Your task to perform on an android device: toggle pop-ups in chrome Image 0: 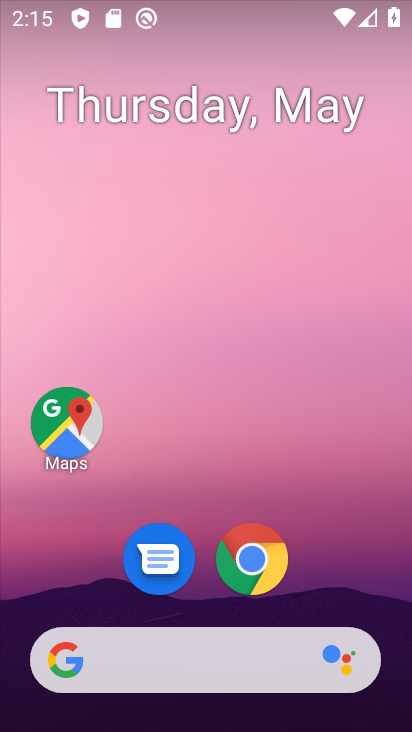
Step 0: click (253, 572)
Your task to perform on an android device: toggle pop-ups in chrome Image 1: 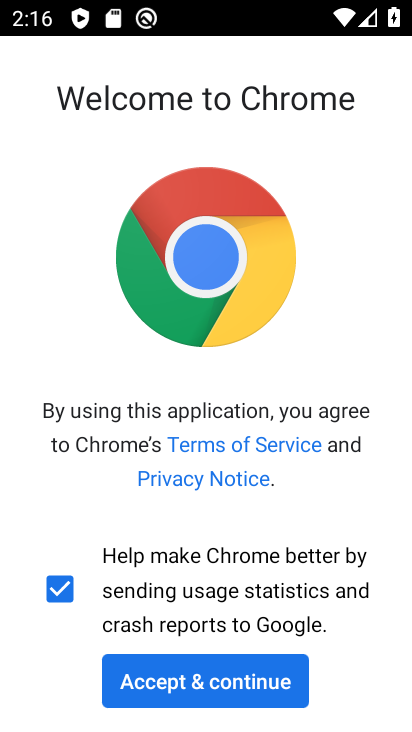
Step 1: click (220, 684)
Your task to perform on an android device: toggle pop-ups in chrome Image 2: 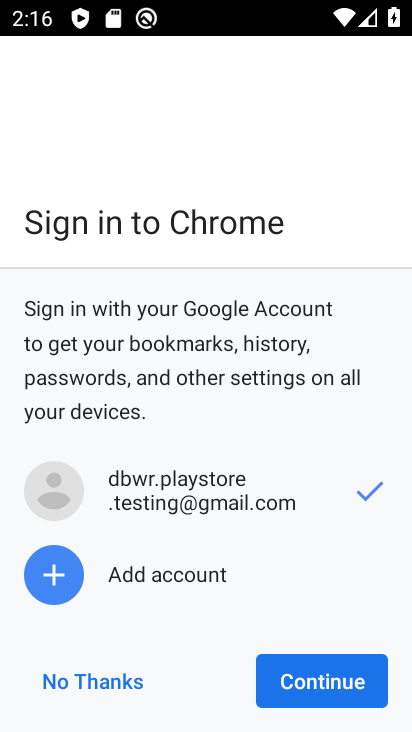
Step 2: click (367, 675)
Your task to perform on an android device: toggle pop-ups in chrome Image 3: 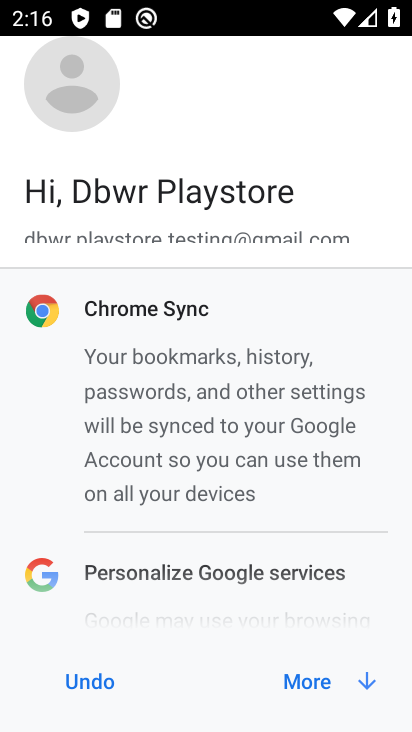
Step 3: click (322, 676)
Your task to perform on an android device: toggle pop-ups in chrome Image 4: 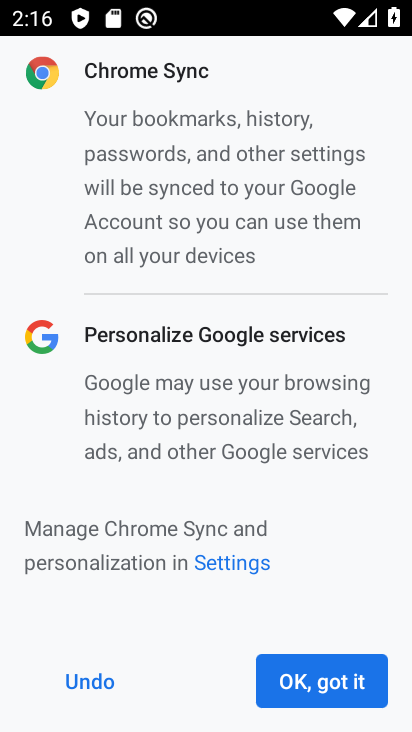
Step 4: click (322, 676)
Your task to perform on an android device: toggle pop-ups in chrome Image 5: 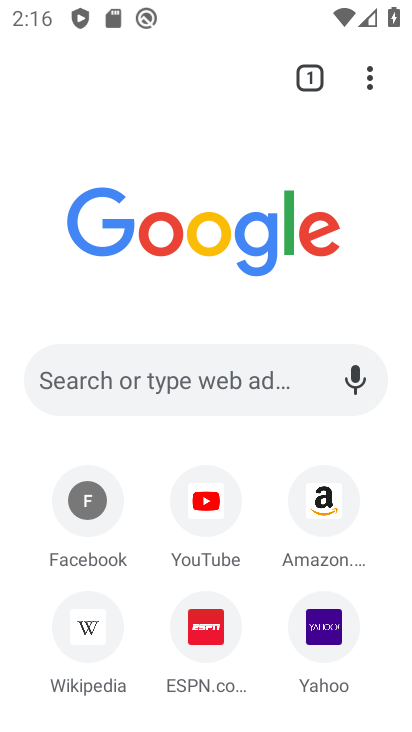
Step 5: click (371, 77)
Your task to perform on an android device: toggle pop-ups in chrome Image 6: 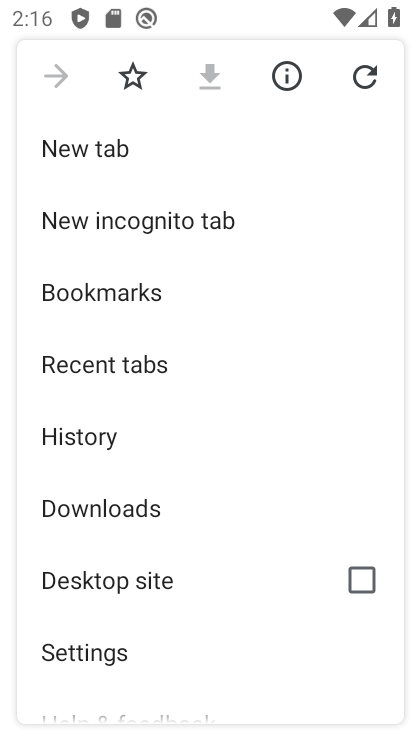
Step 6: click (94, 640)
Your task to perform on an android device: toggle pop-ups in chrome Image 7: 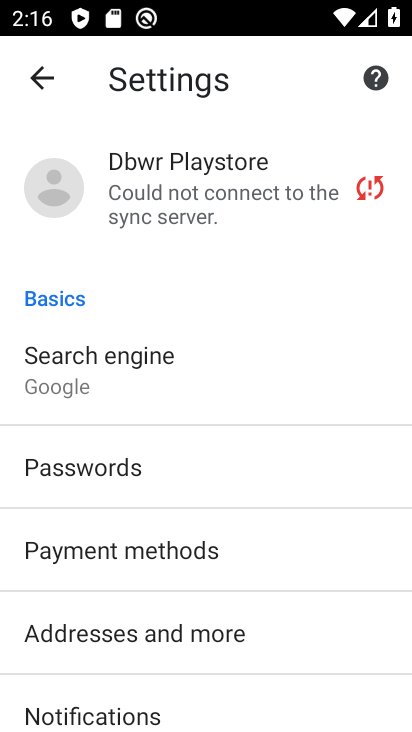
Step 7: drag from (154, 568) to (201, 323)
Your task to perform on an android device: toggle pop-ups in chrome Image 8: 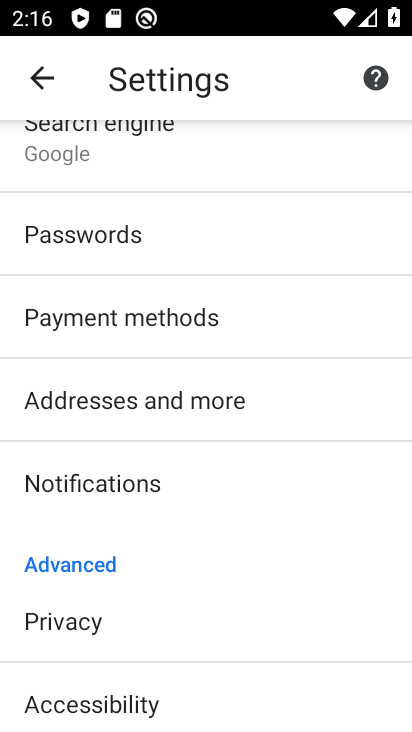
Step 8: drag from (112, 620) to (169, 437)
Your task to perform on an android device: toggle pop-ups in chrome Image 9: 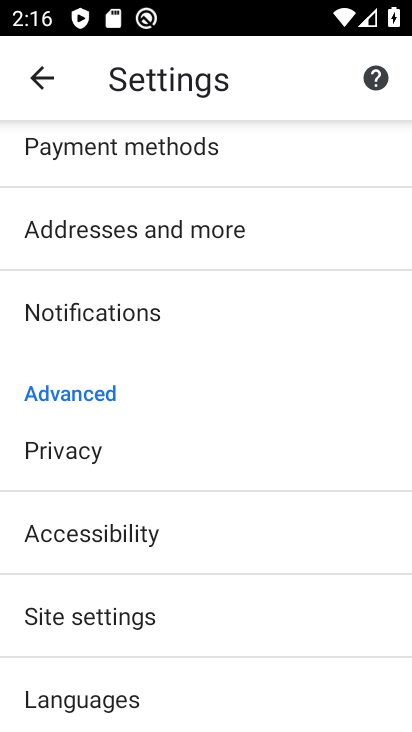
Step 9: click (95, 625)
Your task to perform on an android device: toggle pop-ups in chrome Image 10: 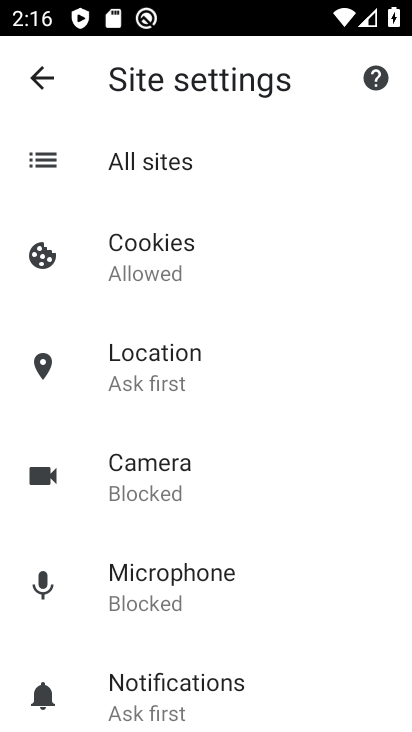
Step 10: drag from (160, 562) to (181, 385)
Your task to perform on an android device: toggle pop-ups in chrome Image 11: 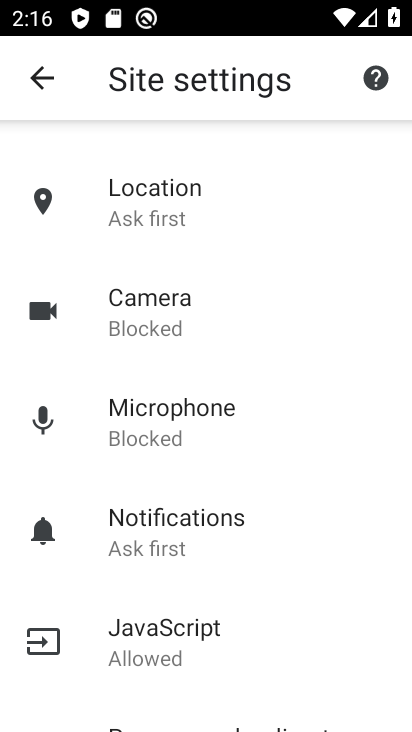
Step 11: drag from (173, 634) to (206, 333)
Your task to perform on an android device: toggle pop-ups in chrome Image 12: 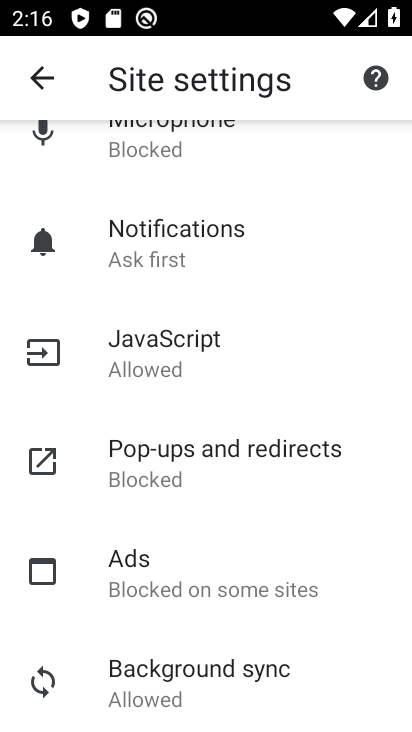
Step 12: click (161, 485)
Your task to perform on an android device: toggle pop-ups in chrome Image 13: 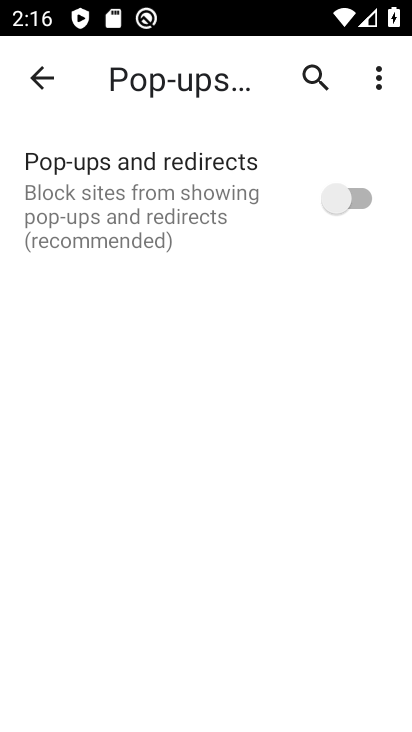
Step 13: click (353, 191)
Your task to perform on an android device: toggle pop-ups in chrome Image 14: 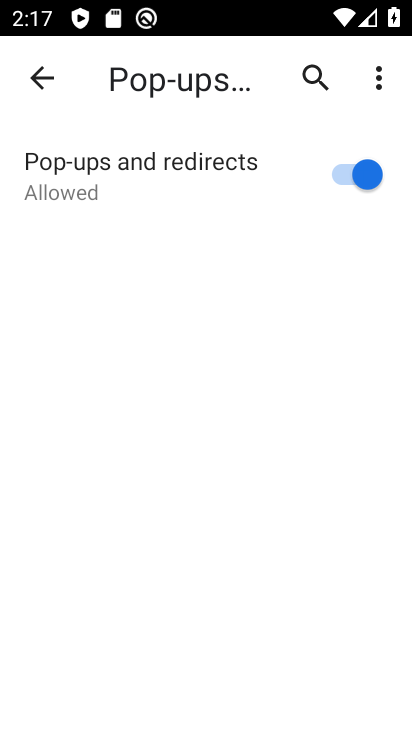
Step 14: task complete